Your task to perform on an android device: Open ESPN.com Image 0: 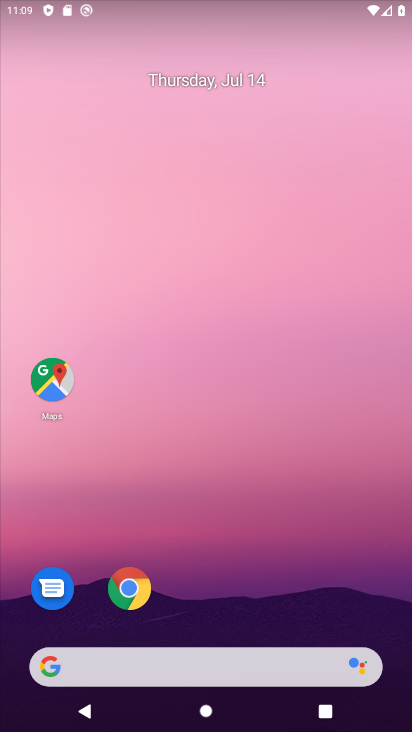
Step 0: drag from (232, 629) to (164, 44)
Your task to perform on an android device: Open ESPN.com Image 1: 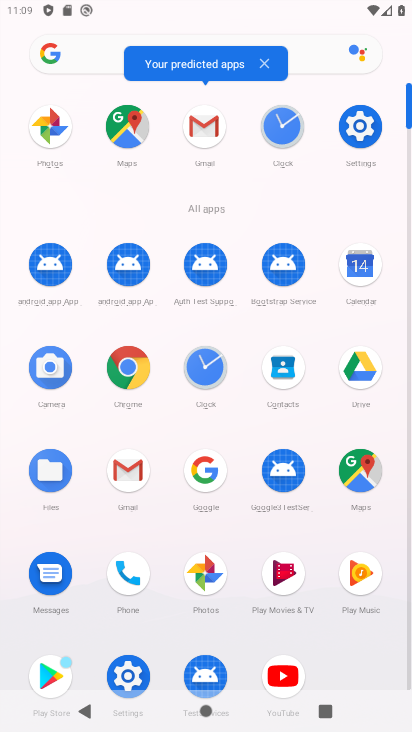
Step 1: click (134, 375)
Your task to perform on an android device: Open ESPN.com Image 2: 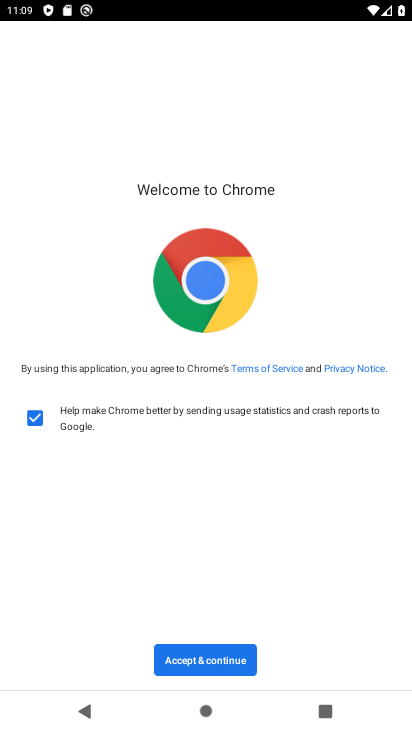
Step 2: click (220, 668)
Your task to perform on an android device: Open ESPN.com Image 3: 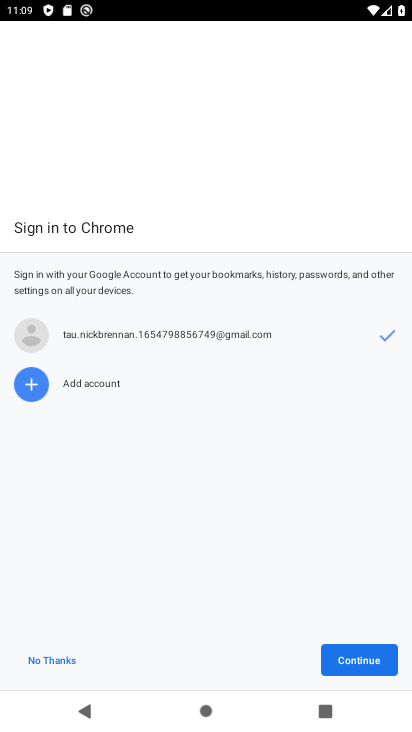
Step 3: click (377, 668)
Your task to perform on an android device: Open ESPN.com Image 4: 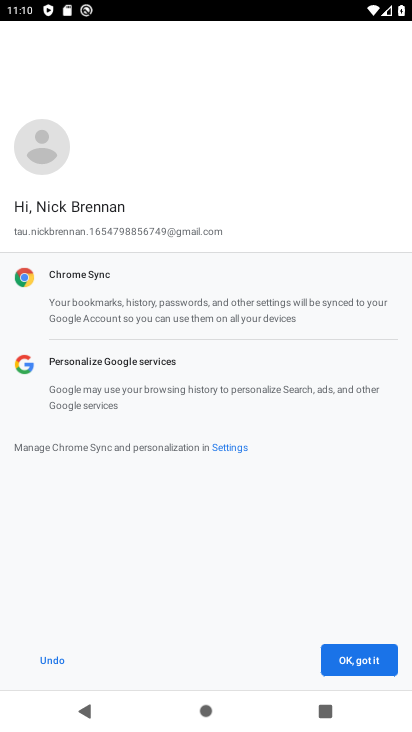
Step 4: click (361, 664)
Your task to perform on an android device: Open ESPN.com Image 5: 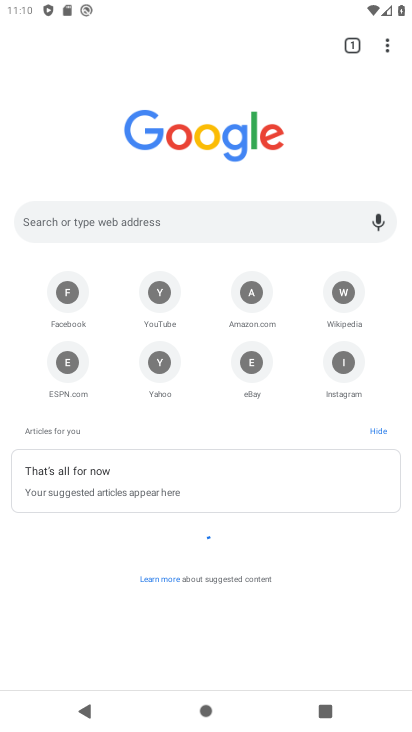
Step 5: click (66, 381)
Your task to perform on an android device: Open ESPN.com Image 6: 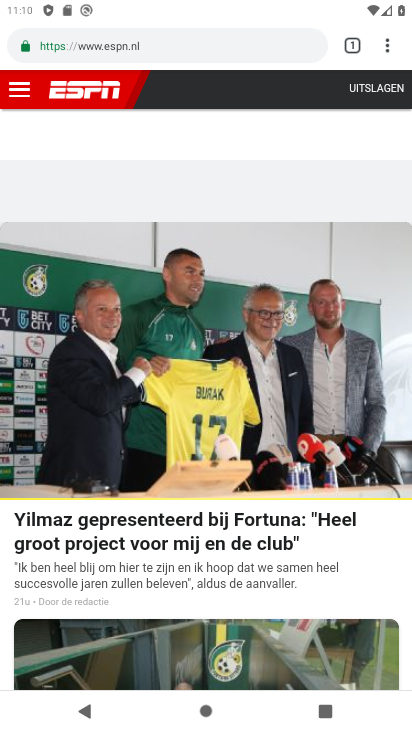
Step 6: task complete